Your task to perform on an android device: Open notification settings Image 0: 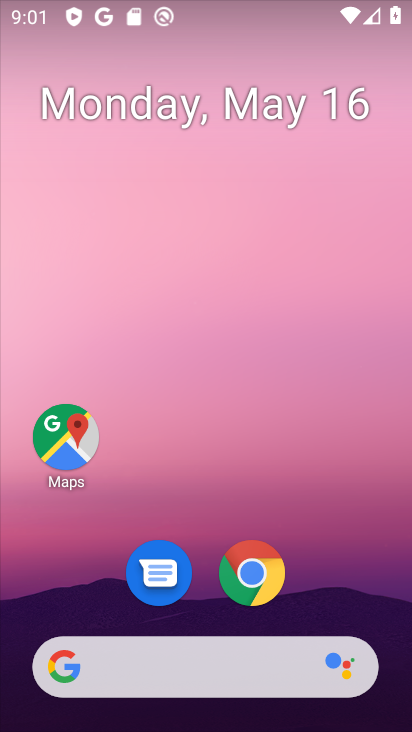
Step 0: drag from (316, 544) to (295, 181)
Your task to perform on an android device: Open notification settings Image 1: 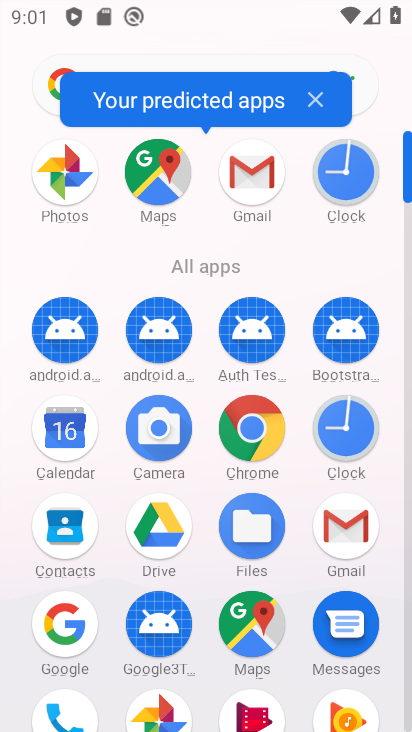
Step 1: drag from (270, 564) to (313, 167)
Your task to perform on an android device: Open notification settings Image 2: 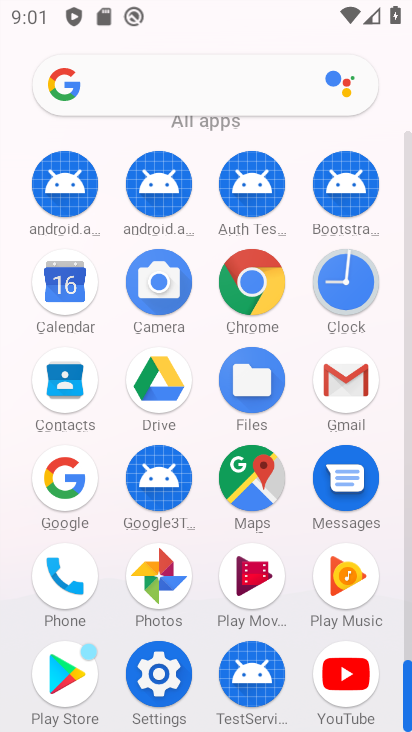
Step 2: click (157, 663)
Your task to perform on an android device: Open notification settings Image 3: 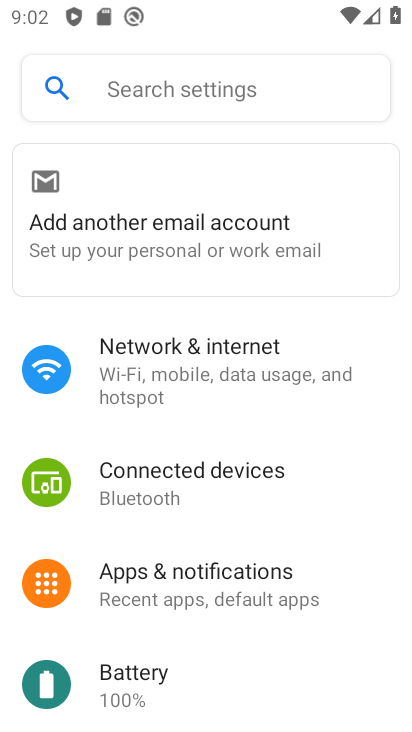
Step 3: click (183, 596)
Your task to perform on an android device: Open notification settings Image 4: 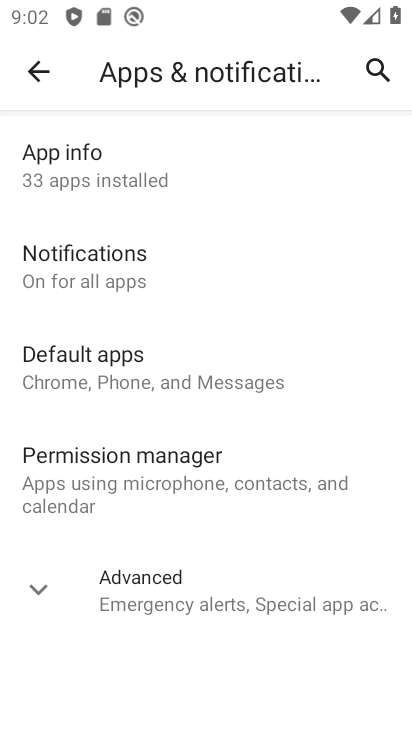
Step 4: click (123, 266)
Your task to perform on an android device: Open notification settings Image 5: 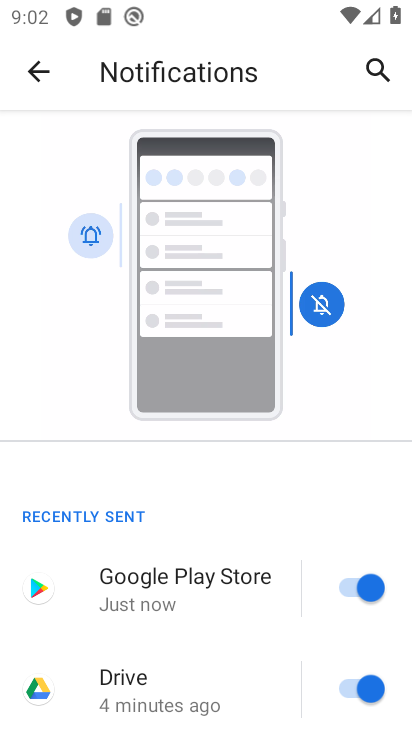
Step 5: task complete